Your task to perform on an android device: set the timer Image 0: 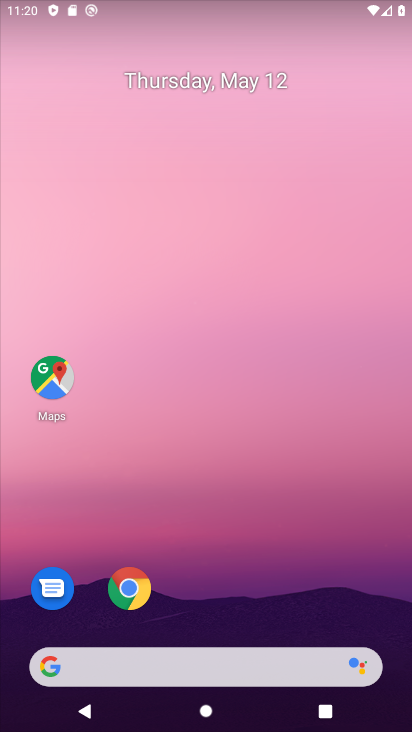
Step 0: drag from (189, 634) to (181, 236)
Your task to perform on an android device: set the timer Image 1: 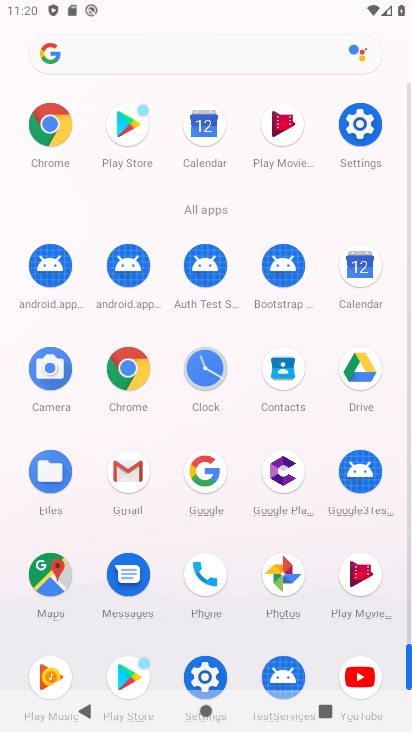
Step 1: click (197, 364)
Your task to perform on an android device: set the timer Image 2: 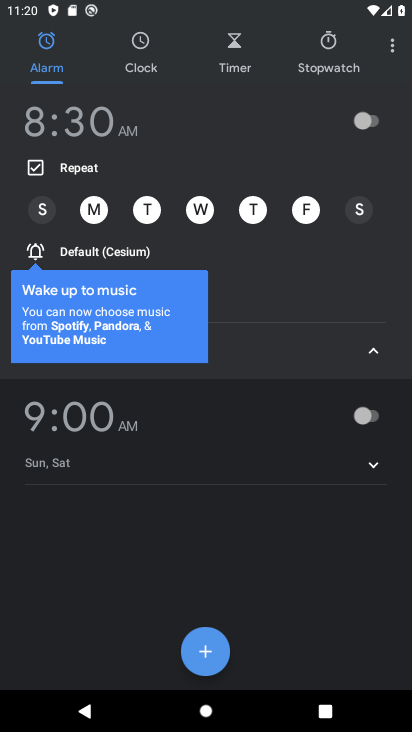
Step 2: click (338, 60)
Your task to perform on an android device: set the timer Image 3: 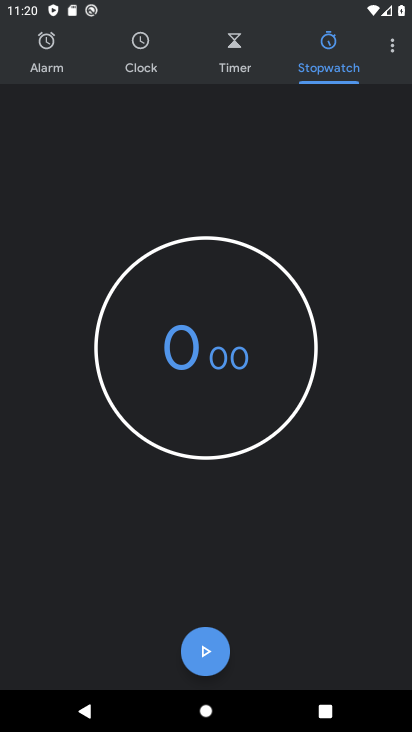
Step 3: click (390, 45)
Your task to perform on an android device: set the timer Image 4: 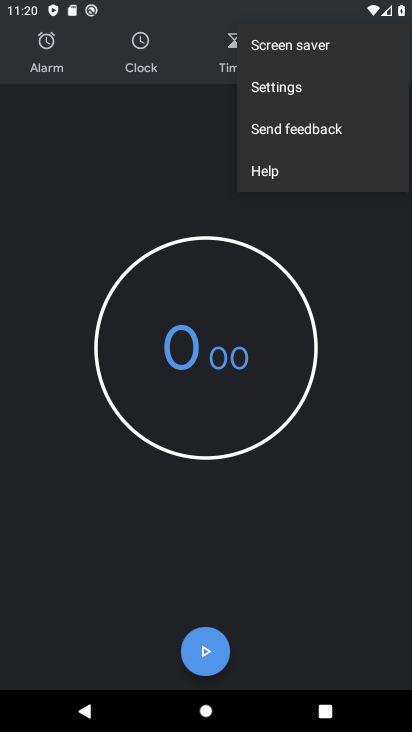
Step 4: click (281, 94)
Your task to perform on an android device: set the timer Image 5: 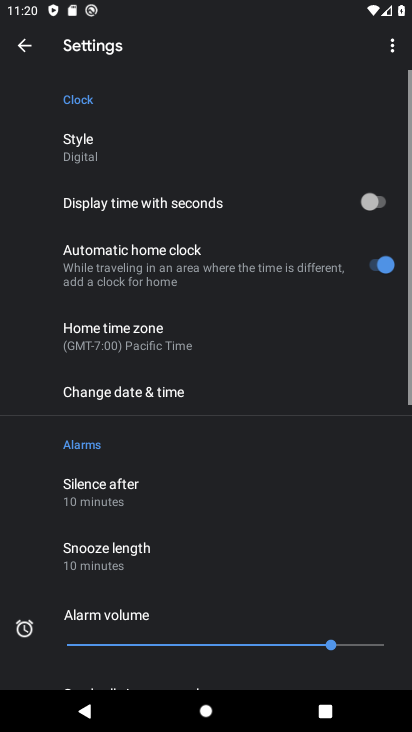
Step 5: click (45, 51)
Your task to perform on an android device: set the timer Image 6: 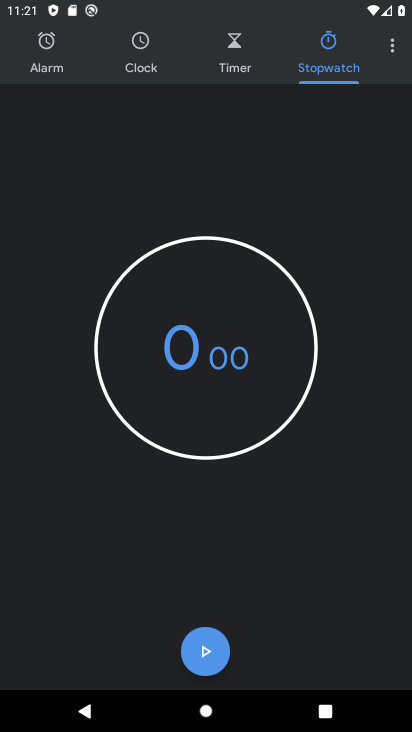
Step 6: click (230, 50)
Your task to perform on an android device: set the timer Image 7: 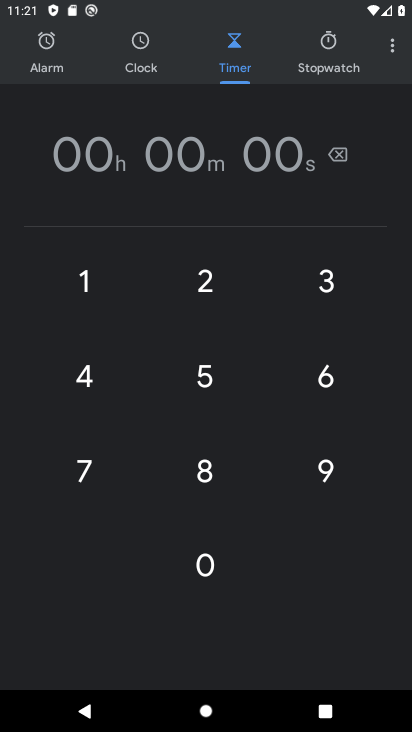
Step 7: click (206, 297)
Your task to perform on an android device: set the timer Image 8: 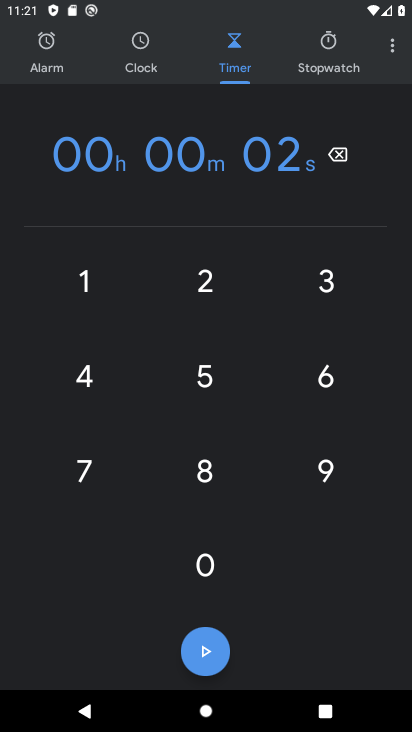
Step 8: click (300, 282)
Your task to perform on an android device: set the timer Image 9: 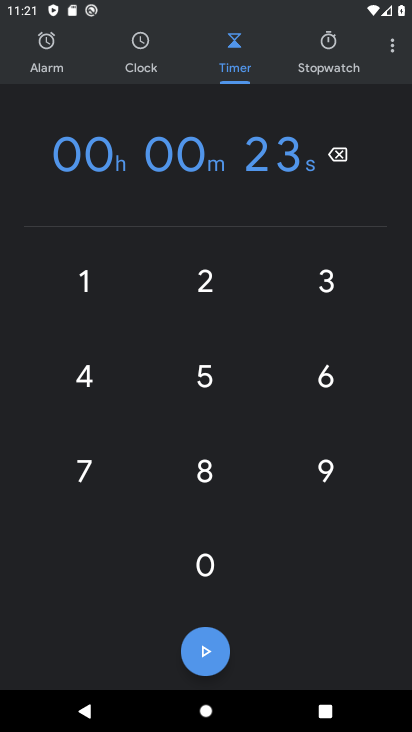
Step 9: click (221, 343)
Your task to perform on an android device: set the timer Image 10: 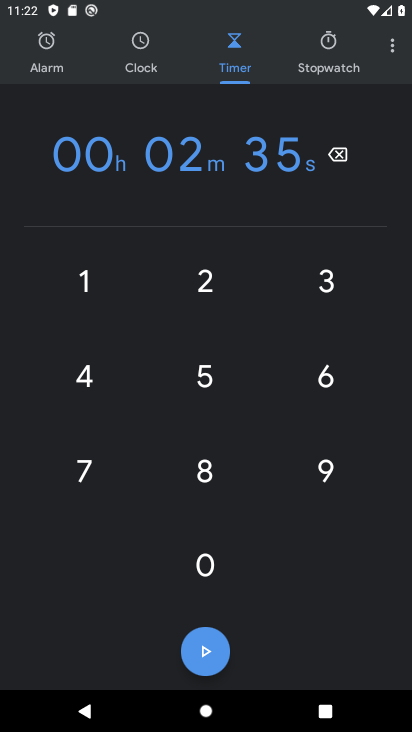
Step 10: click (150, 50)
Your task to perform on an android device: set the timer Image 11: 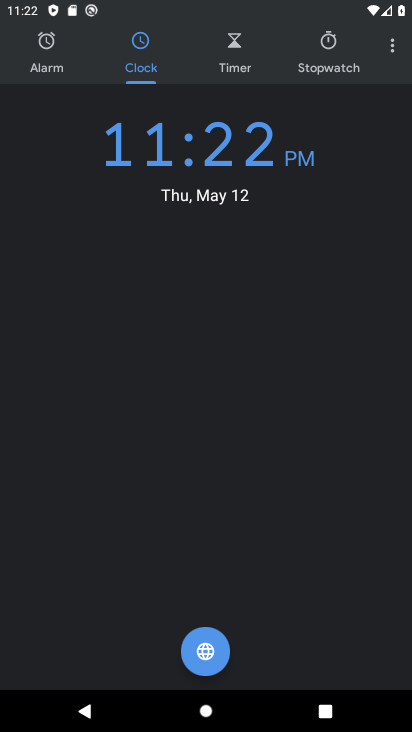
Step 11: click (218, 57)
Your task to perform on an android device: set the timer Image 12: 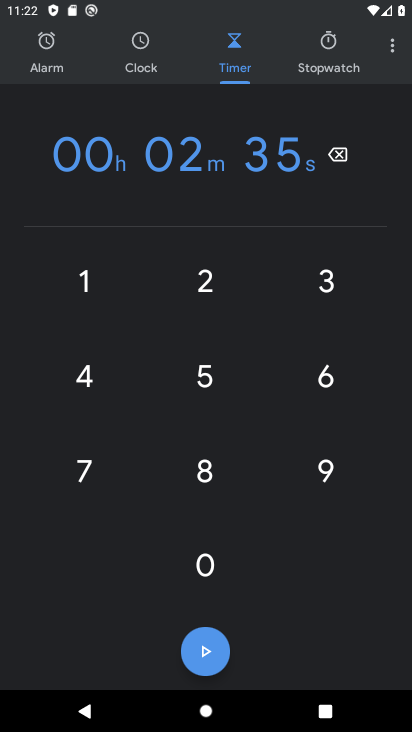
Step 12: click (213, 670)
Your task to perform on an android device: set the timer Image 13: 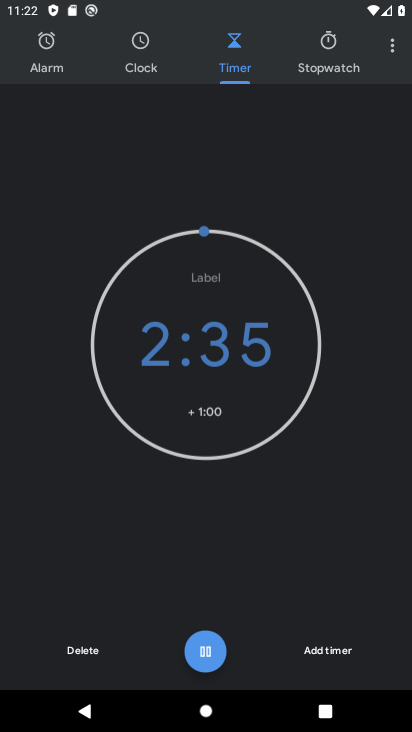
Step 13: task complete